Your task to perform on an android device: Clear the shopping cart on bestbuy. Add razer nari to the cart on bestbuy, then select checkout. Image 0: 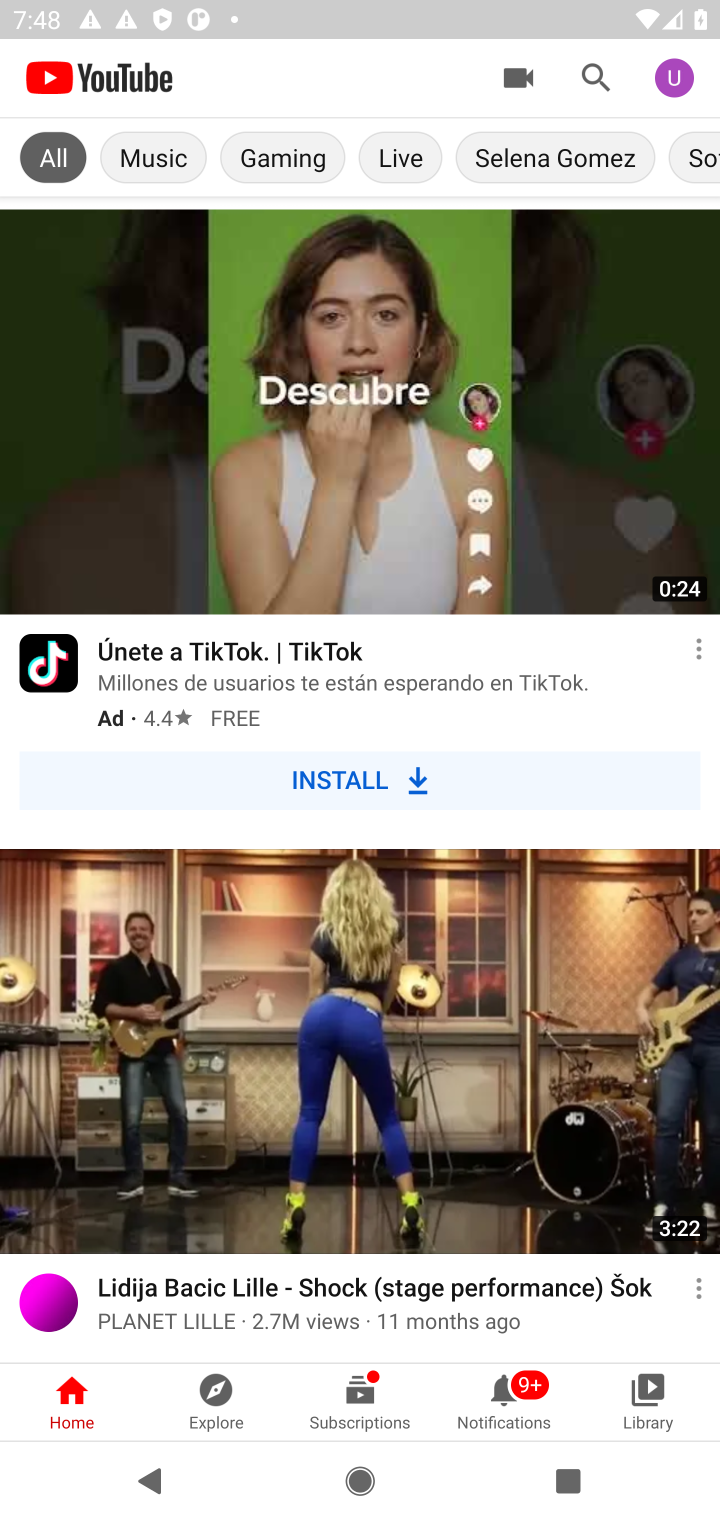
Step 0: press home button
Your task to perform on an android device: Clear the shopping cart on bestbuy. Add razer nari to the cart on bestbuy, then select checkout. Image 1: 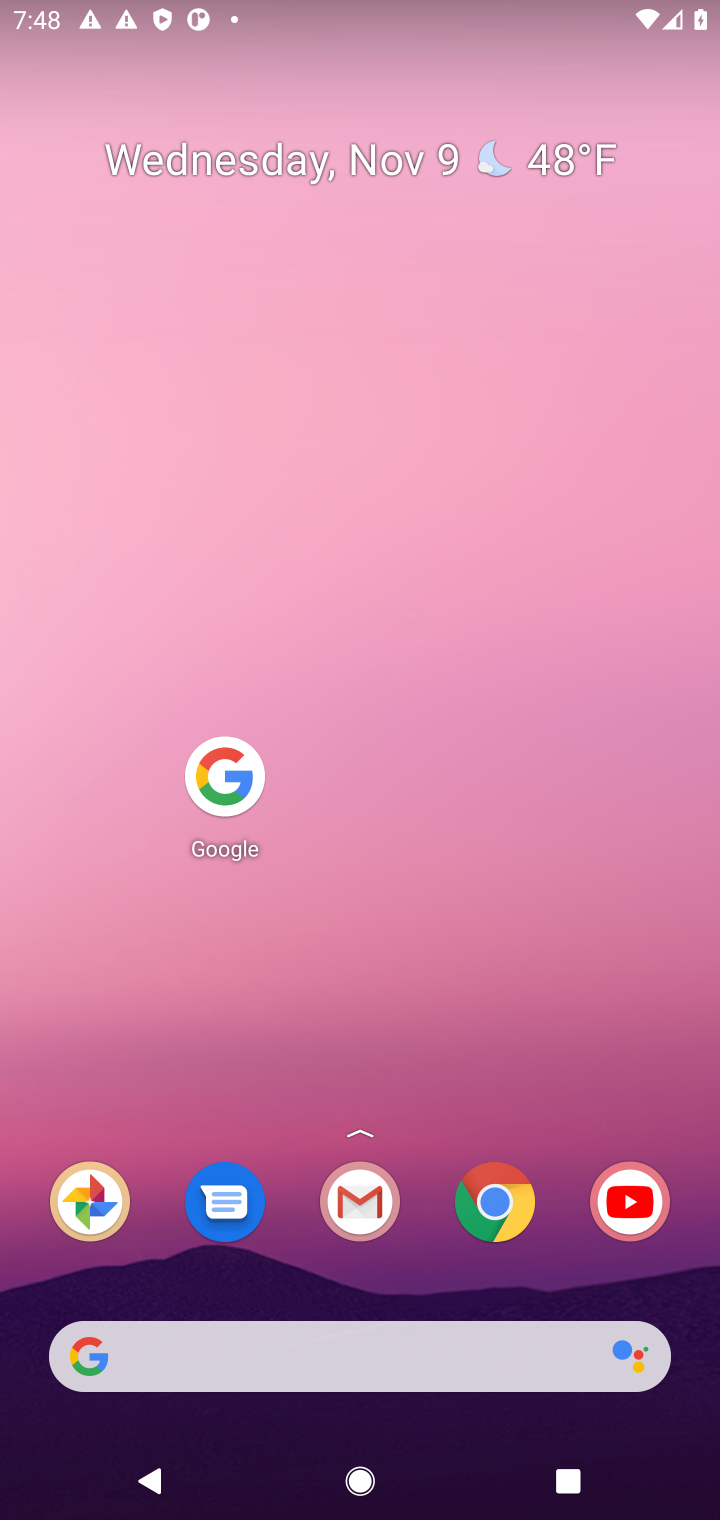
Step 1: click (220, 774)
Your task to perform on an android device: Clear the shopping cart on bestbuy. Add razer nari to the cart on bestbuy, then select checkout. Image 2: 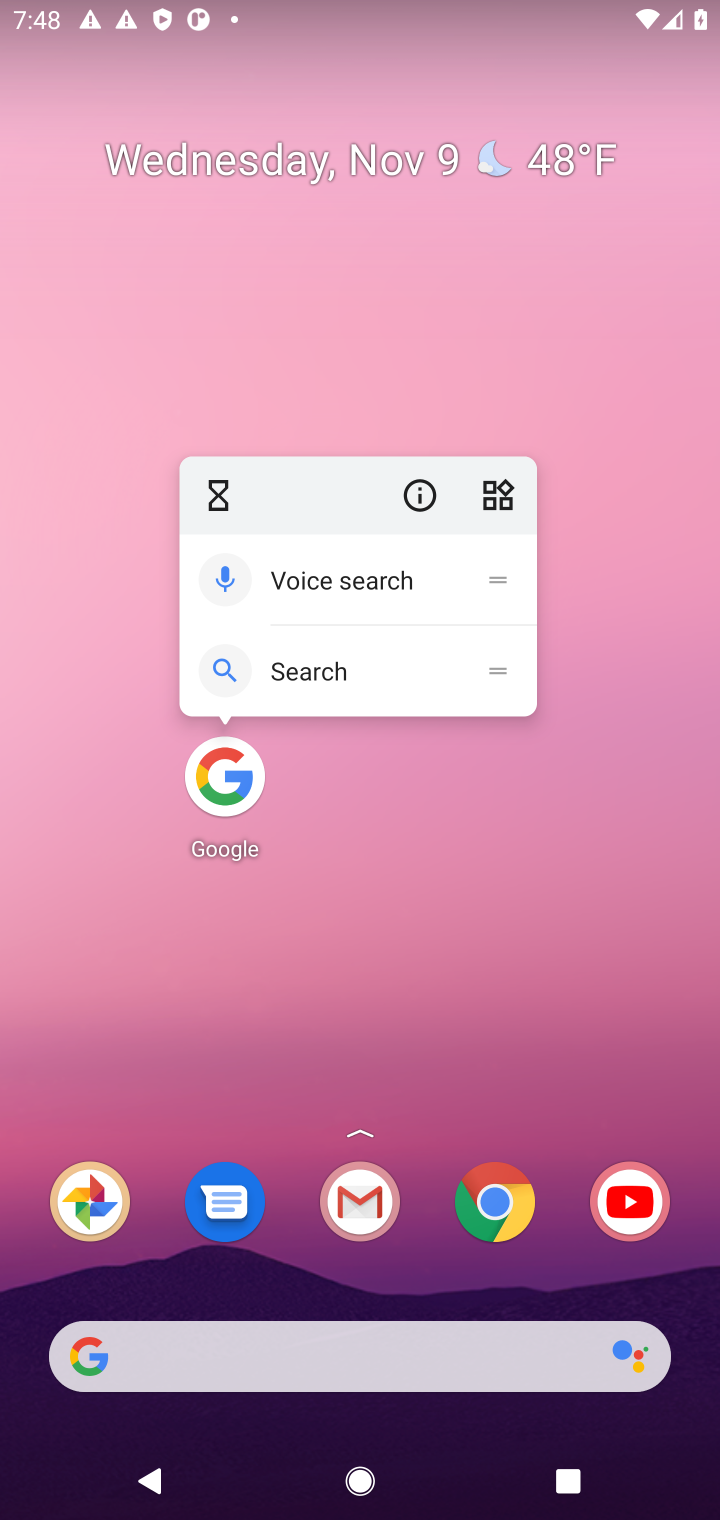
Step 2: click (231, 784)
Your task to perform on an android device: Clear the shopping cart on bestbuy. Add razer nari to the cart on bestbuy, then select checkout. Image 3: 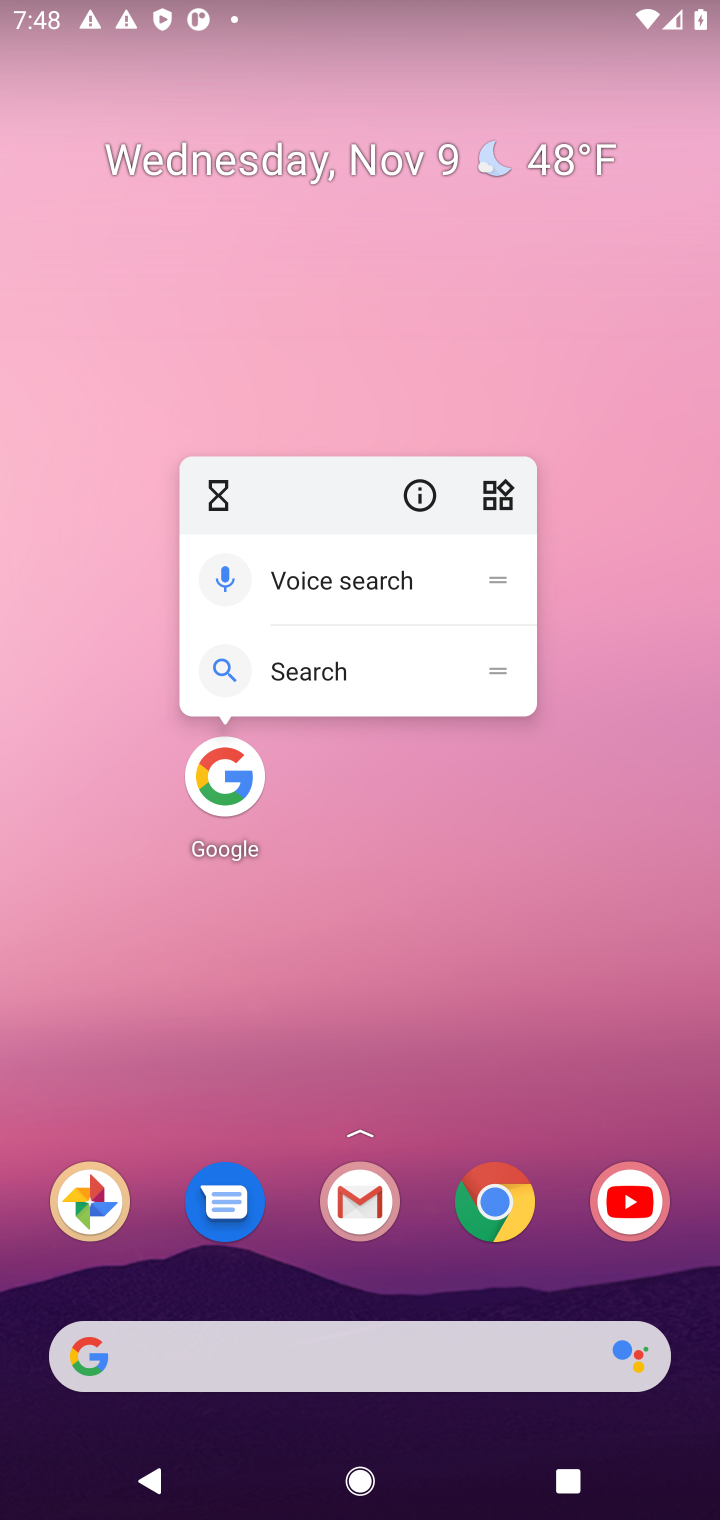
Step 3: click (219, 781)
Your task to perform on an android device: Clear the shopping cart on bestbuy. Add razer nari to the cart on bestbuy, then select checkout. Image 4: 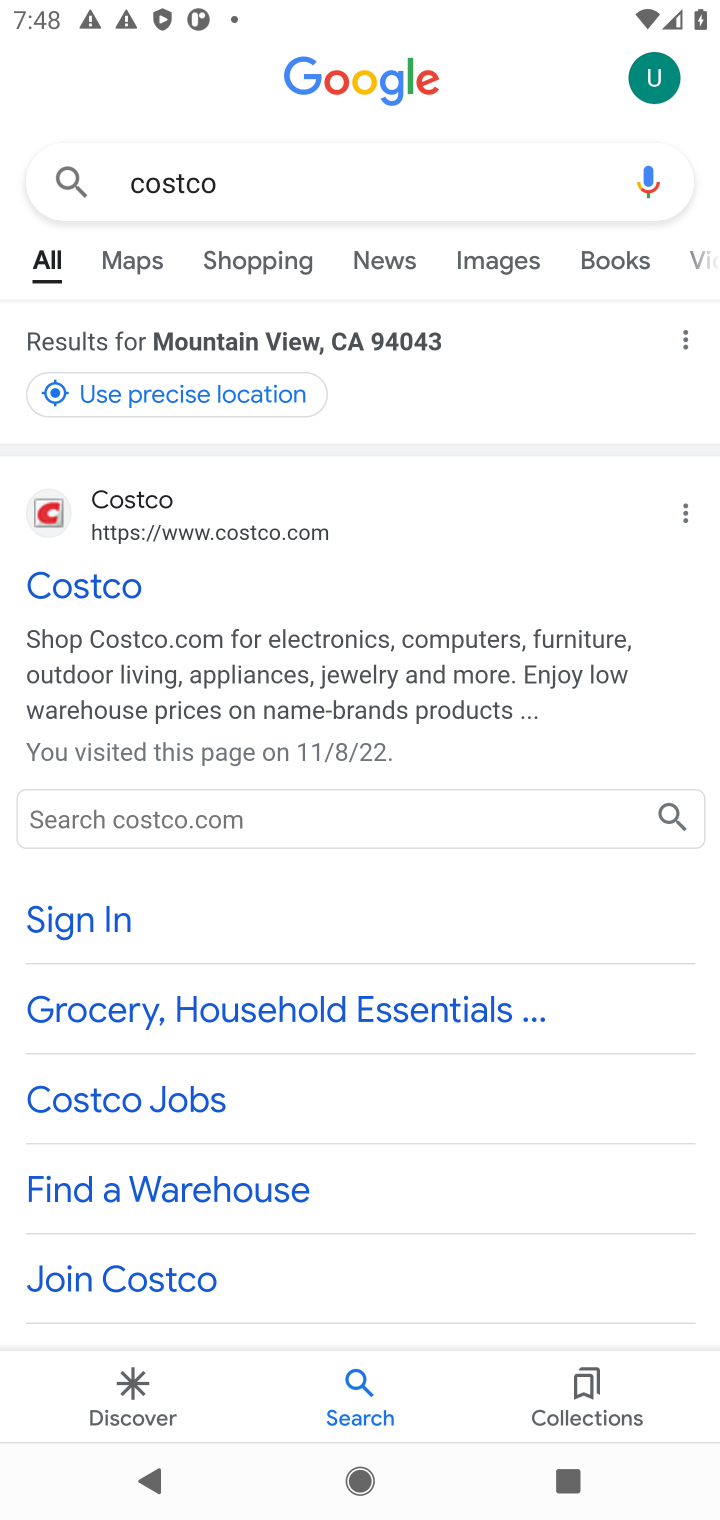
Step 4: click (352, 196)
Your task to perform on an android device: Clear the shopping cart on bestbuy. Add razer nari to the cart on bestbuy, then select checkout. Image 5: 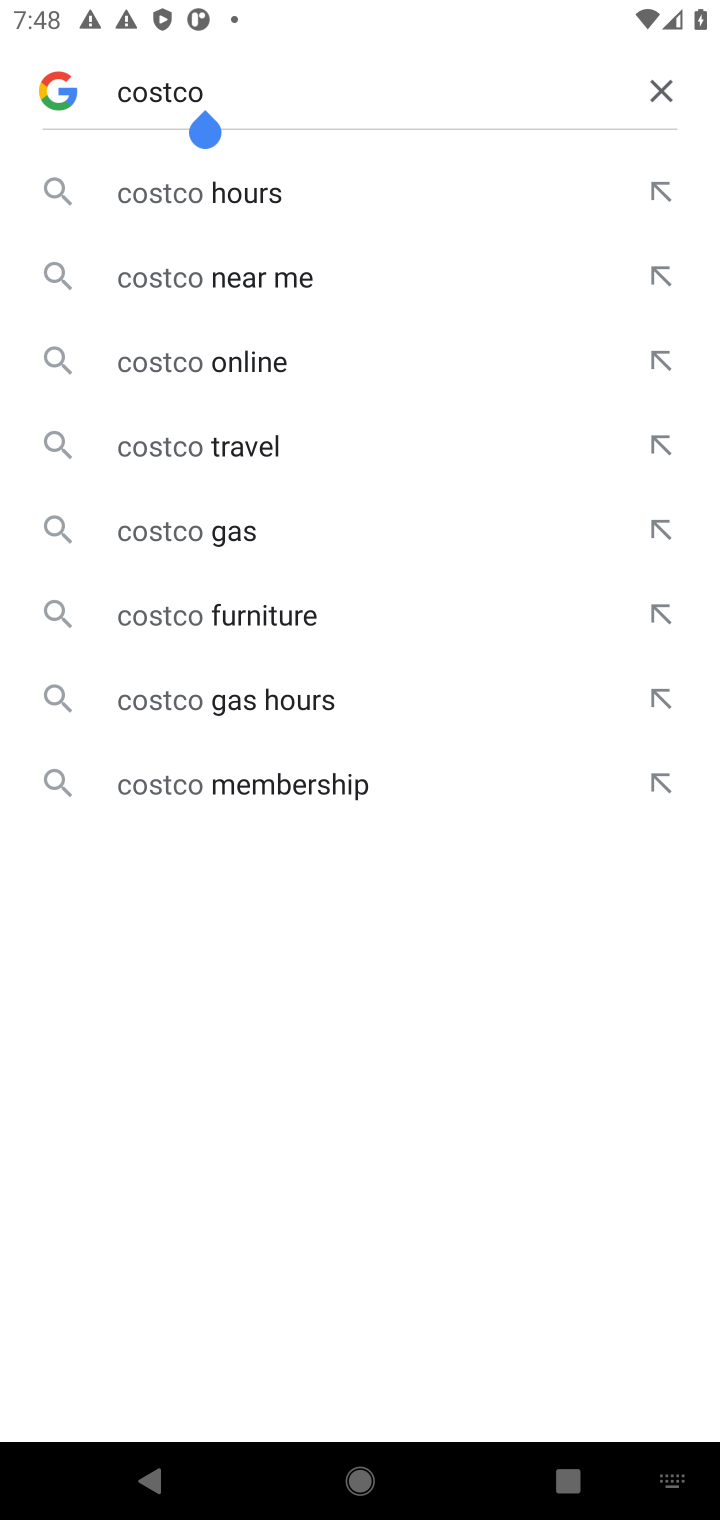
Step 5: click (655, 91)
Your task to perform on an android device: Clear the shopping cart on bestbuy. Add razer nari to the cart on bestbuy, then select checkout. Image 6: 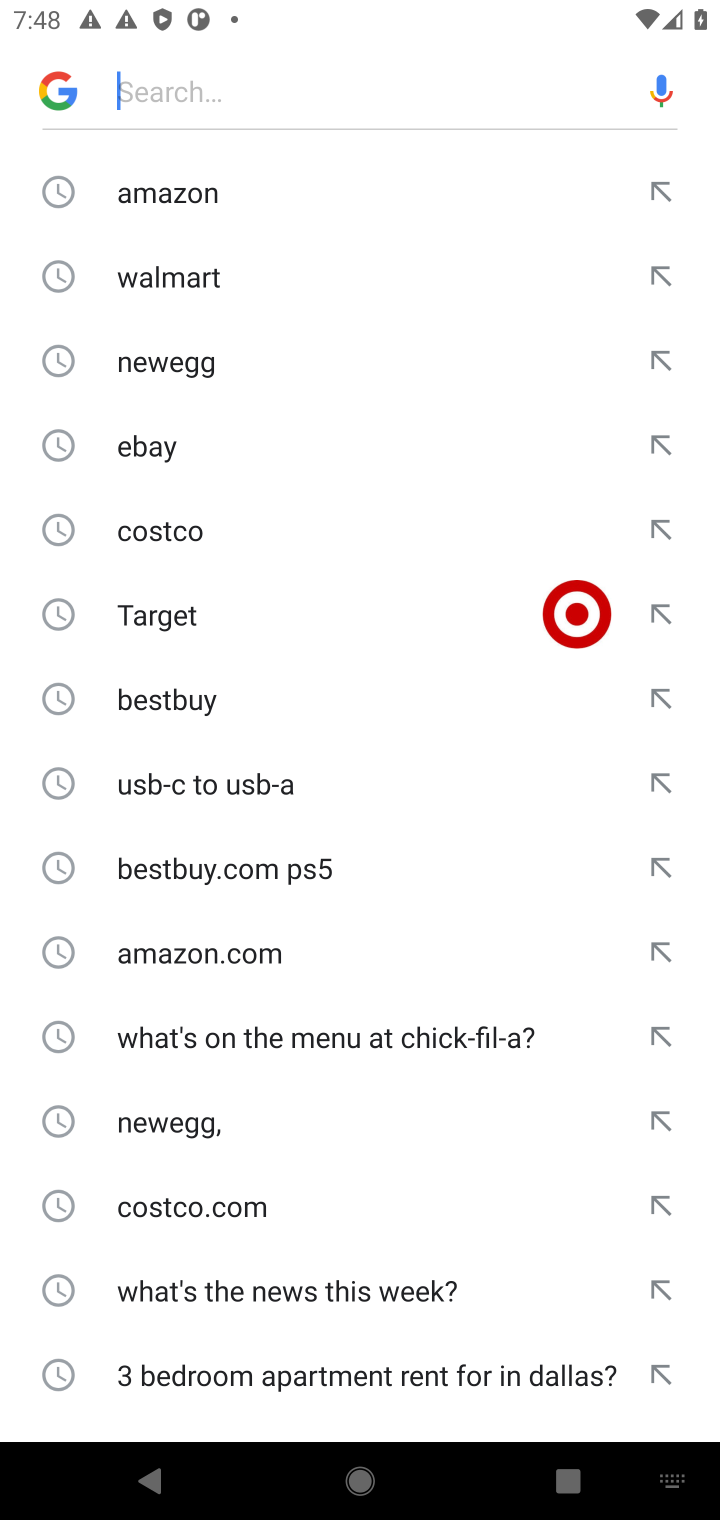
Step 6: click (143, 696)
Your task to perform on an android device: Clear the shopping cart on bestbuy. Add razer nari to the cart on bestbuy, then select checkout. Image 7: 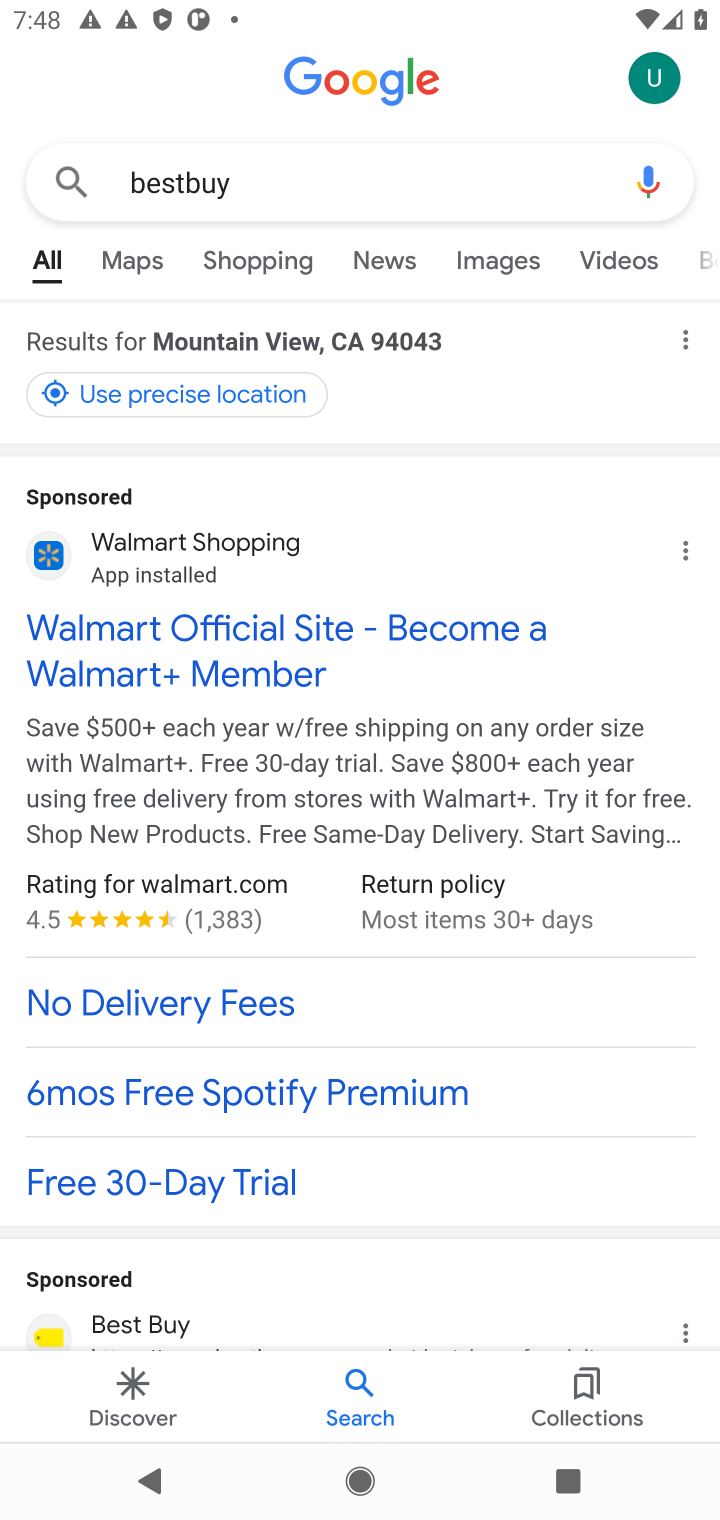
Step 7: drag from (211, 1081) to (453, 606)
Your task to perform on an android device: Clear the shopping cart on bestbuy. Add razer nari to the cart on bestbuy, then select checkout. Image 8: 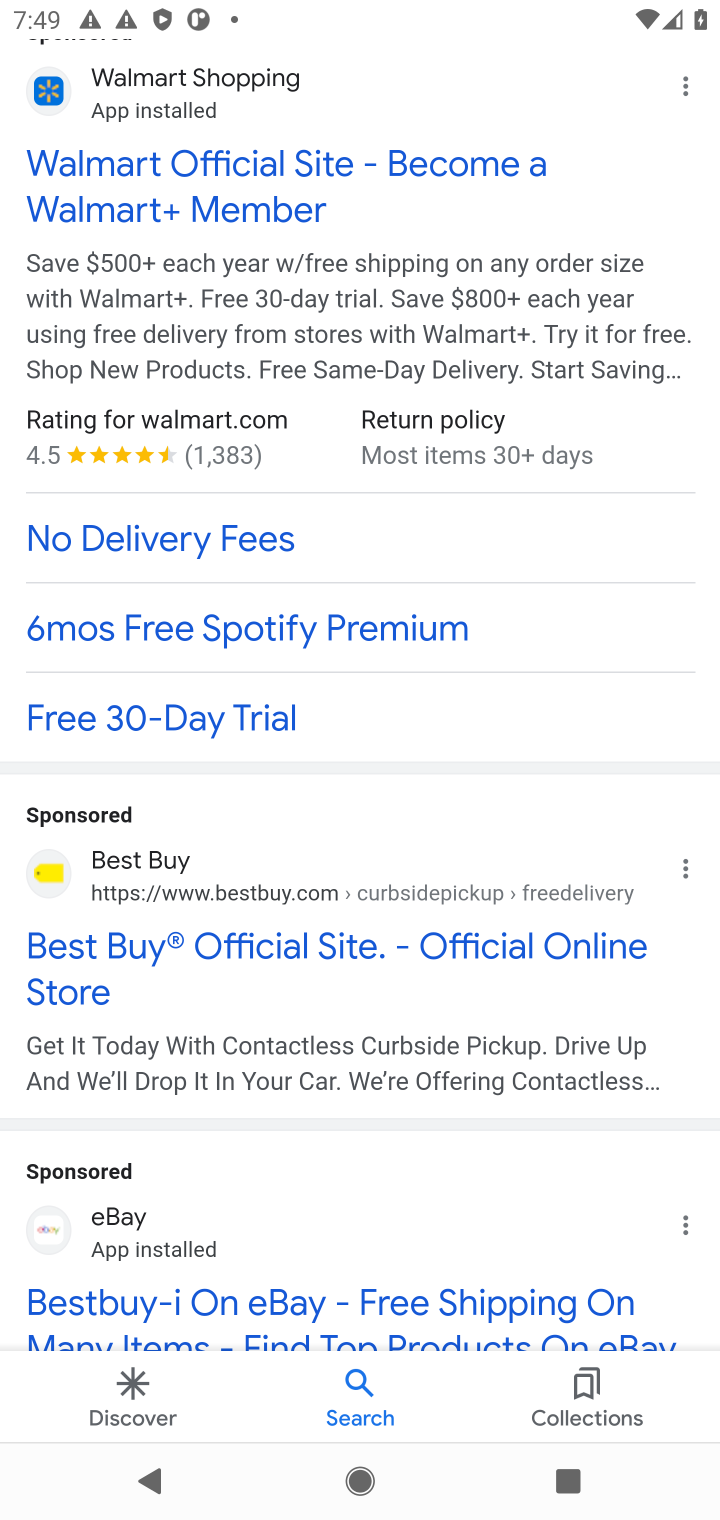
Step 8: click (143, 946)
Your task to perform on an android device: Clear the shopping cart on bestbuy. Add razer nari to the cart on bestbuy, then select checkout. Image 9: 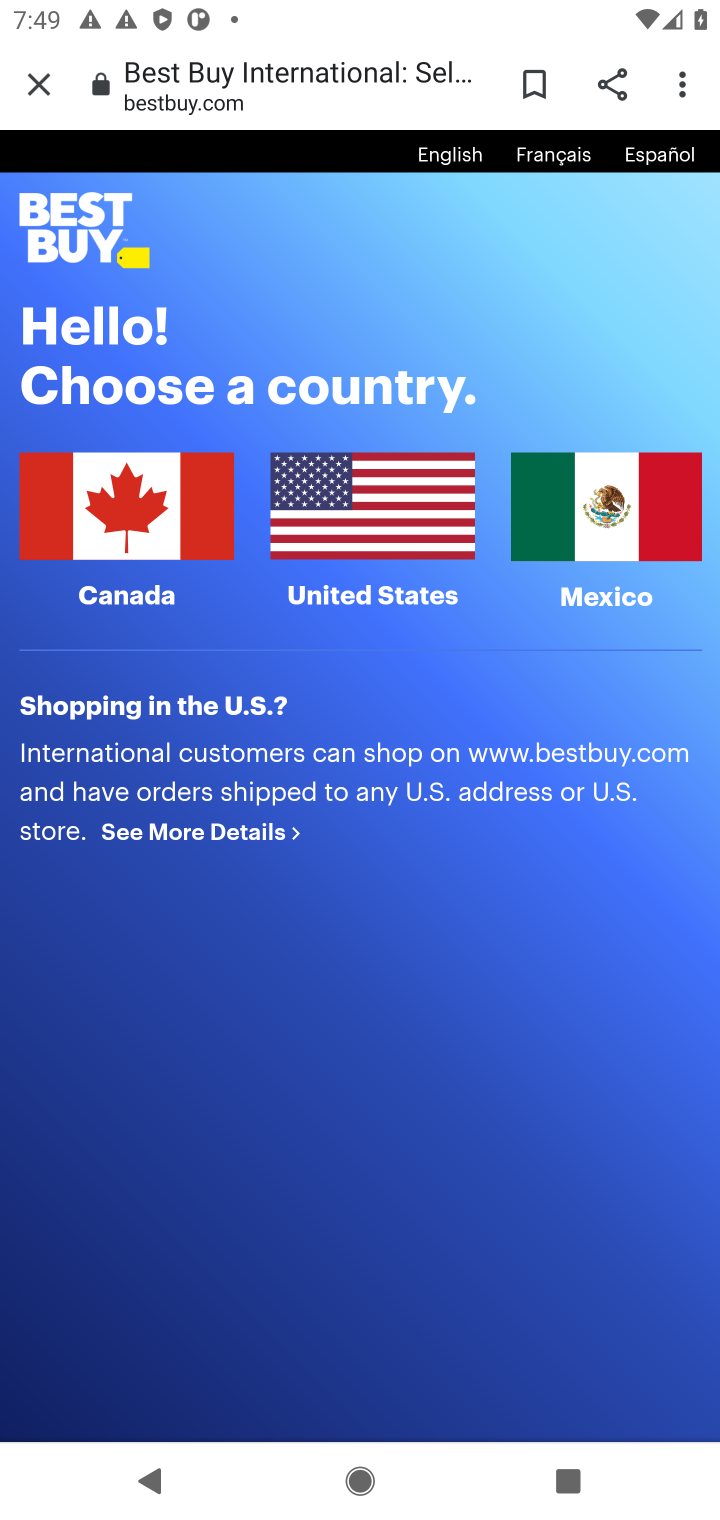
Step 9: click (145, 540)
Your task to perform on an android device: Clear the shopping cart on bestbuy. Add razer nari to the cart on bestbuy, then select checkout. Image 10: 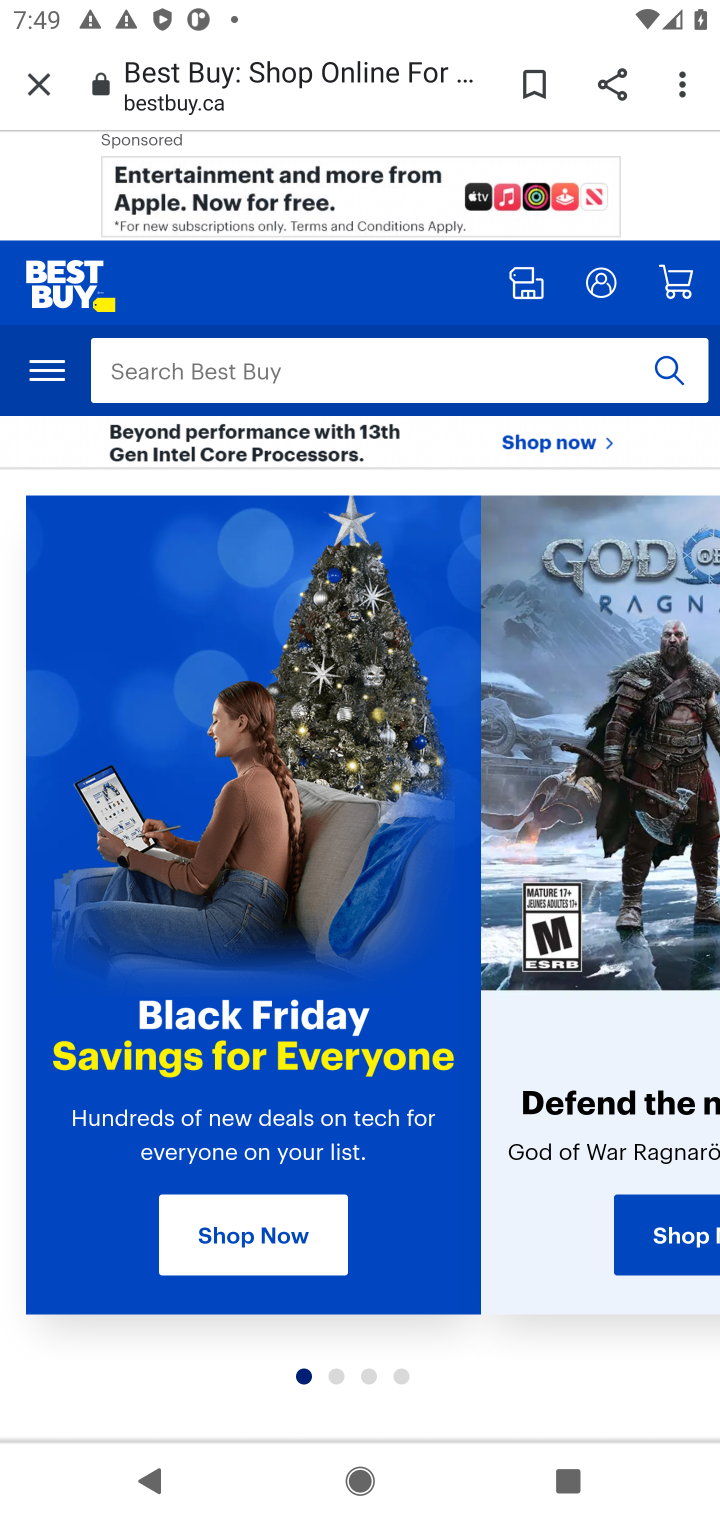
Step 10: click (395, 379)
Your task to perform on an android device: Clear the shopping cart on bestbuy. Add razer nari to the cart on bestbuy, then select checkout. Image 11: 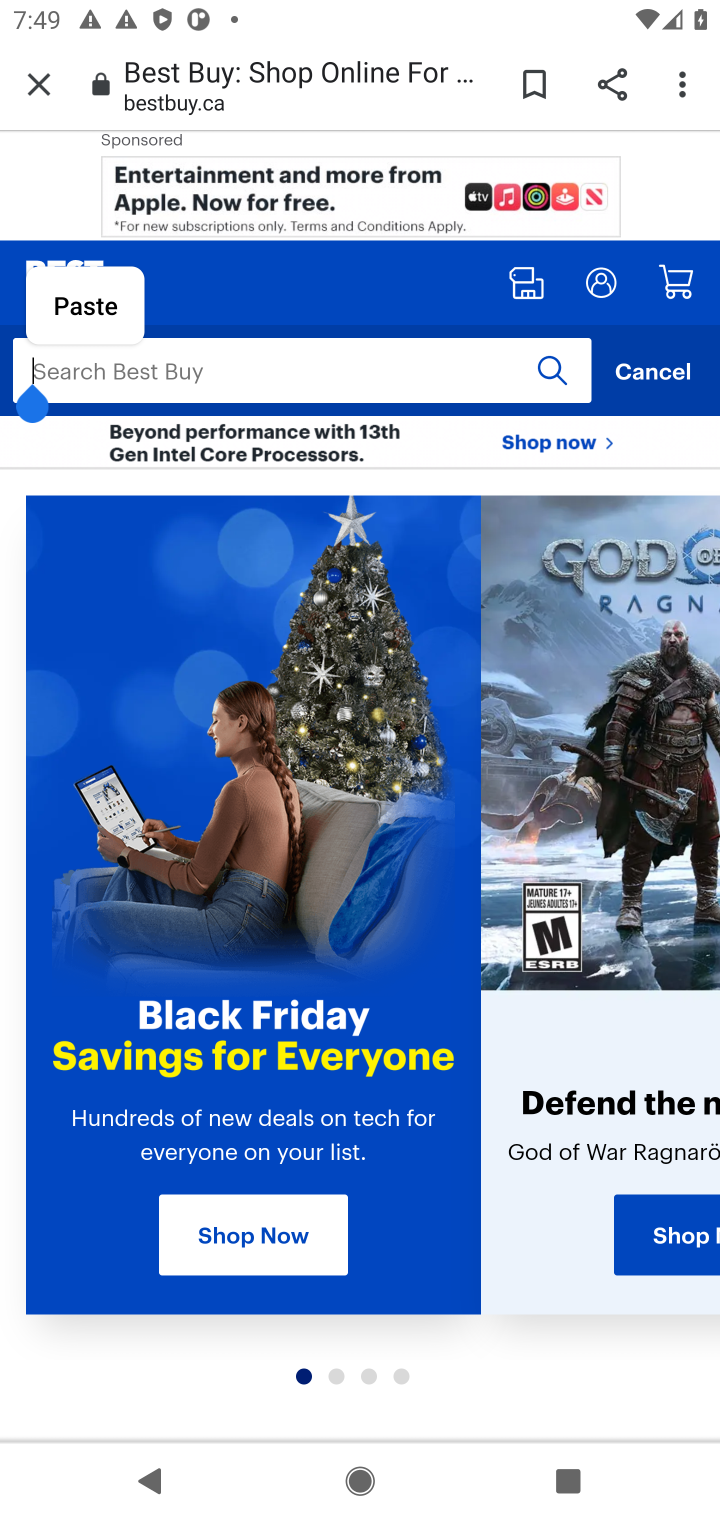
Step 11: type " razer nari"
Your task to perform on an android device: Clear the shopping cart on bestbuy. Add razer nari to the cart on bestbuy, then select checkout. Image 12: 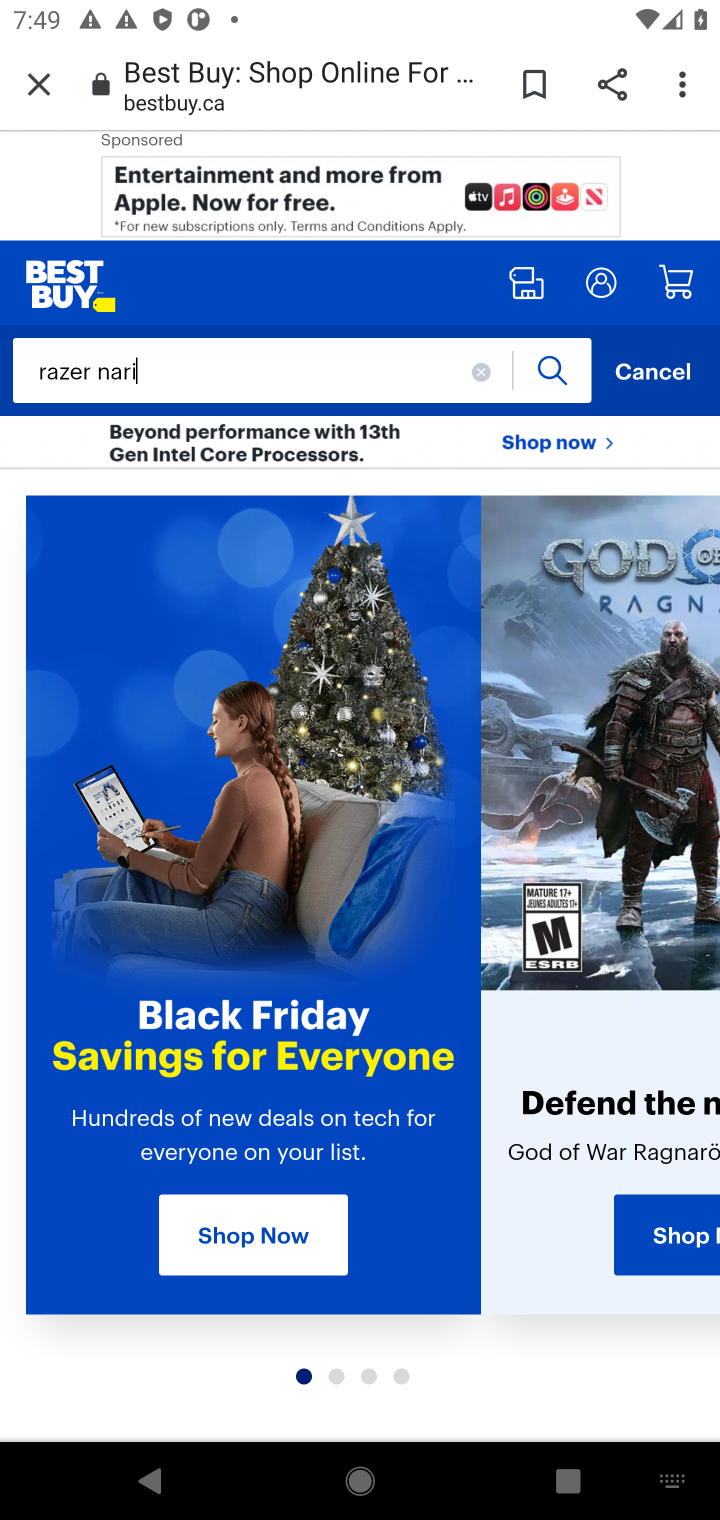
Step 12: press enter
Your task to perform on an android device: Clear the shopping cart on bestbuy. Add razer nari to the cart on bestbuy, then select checkout. Image 13: 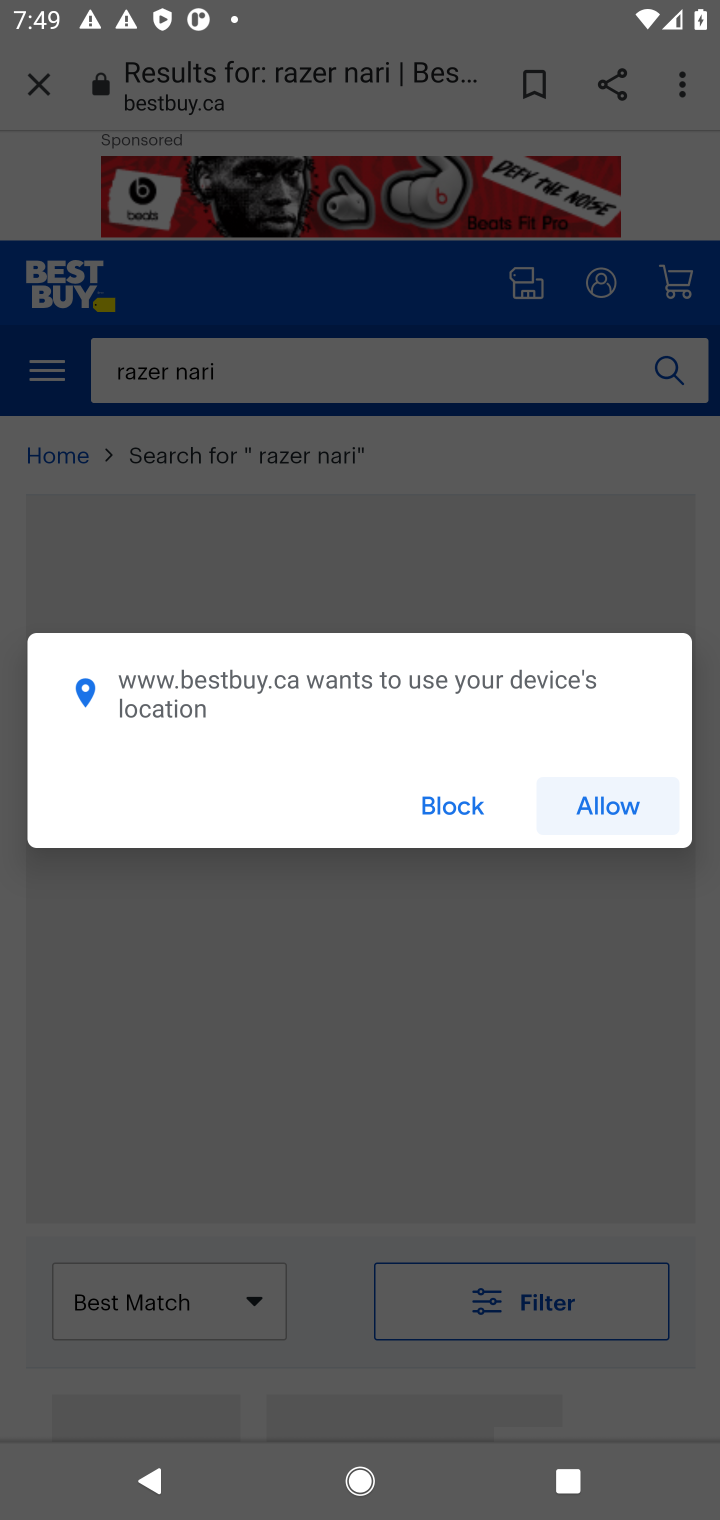
Step 13: click (587, 801)
Your task to perform on an android device: Clear the shopping cart on bestbuy. Add razer nari to the cart on bestbuy, then select checkout. Image 14: 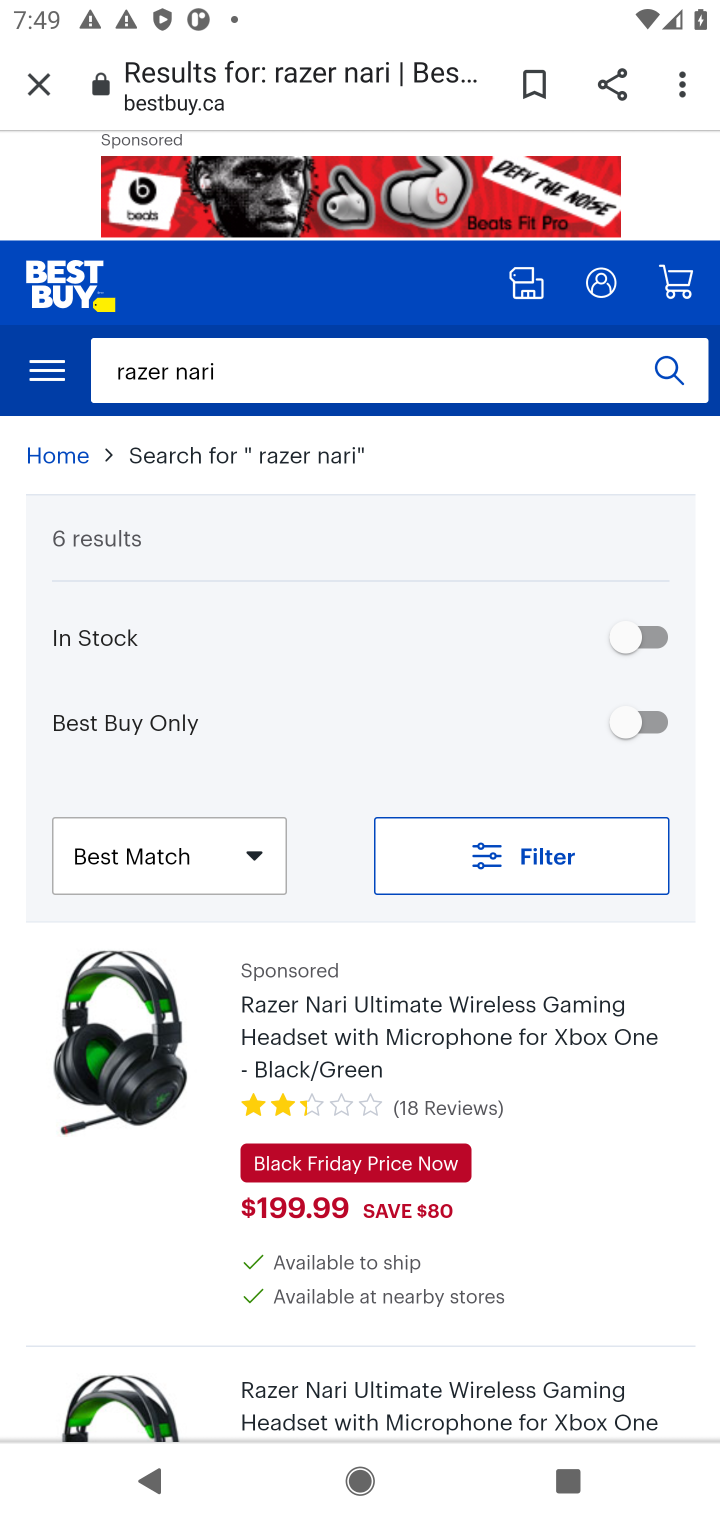
Step 14: drag from (576, 1203) to (631, 1025)
Your task to perform on an android device: Clear the shopping cart on bestbuy. Add razer nari to the cart on bestbuy, then select checkout. Image 15: 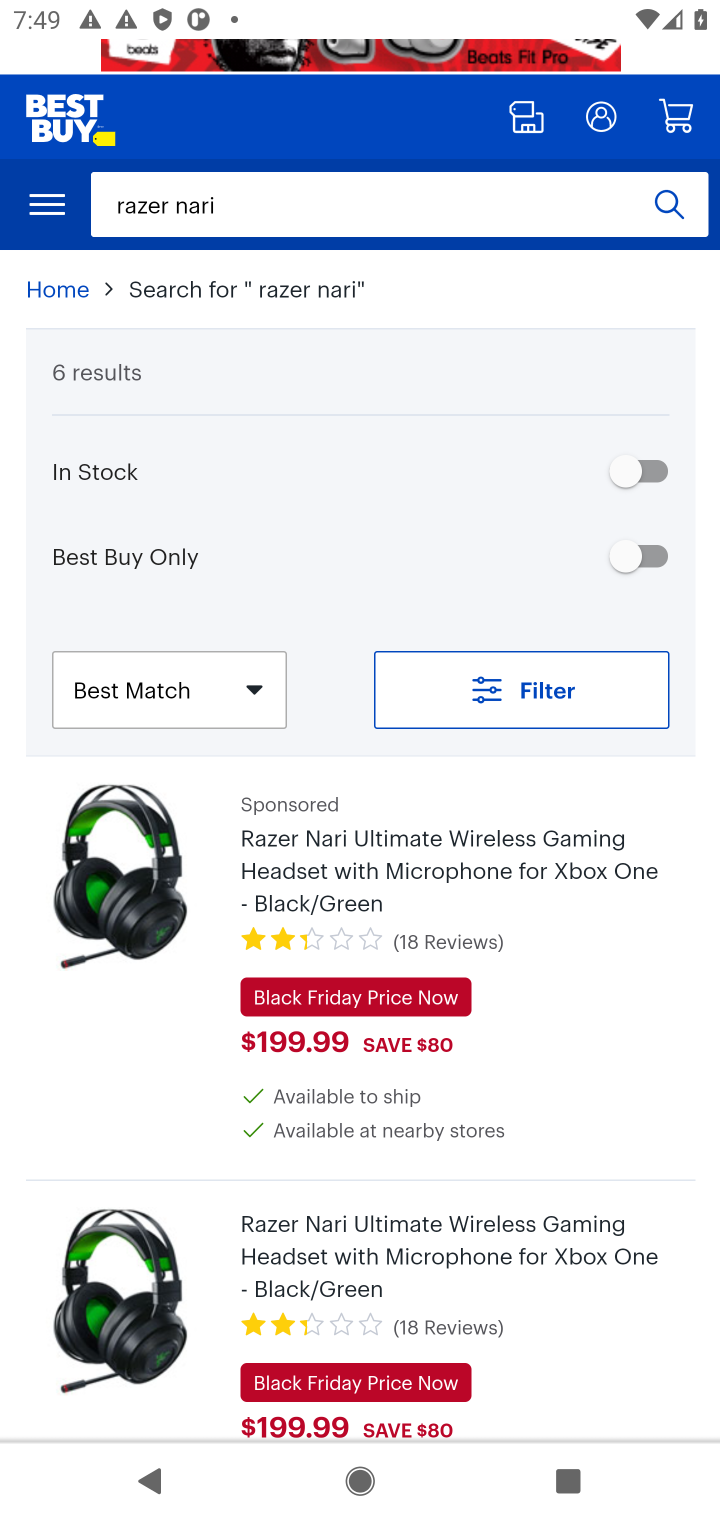
Step 15: drag from (537, 1275) to (599, 822)
Your task to perform on an android device: Clear the shopping cart on bestbuy. Add razer nari to the cart on bestbuy, then select checkout. Image 16: 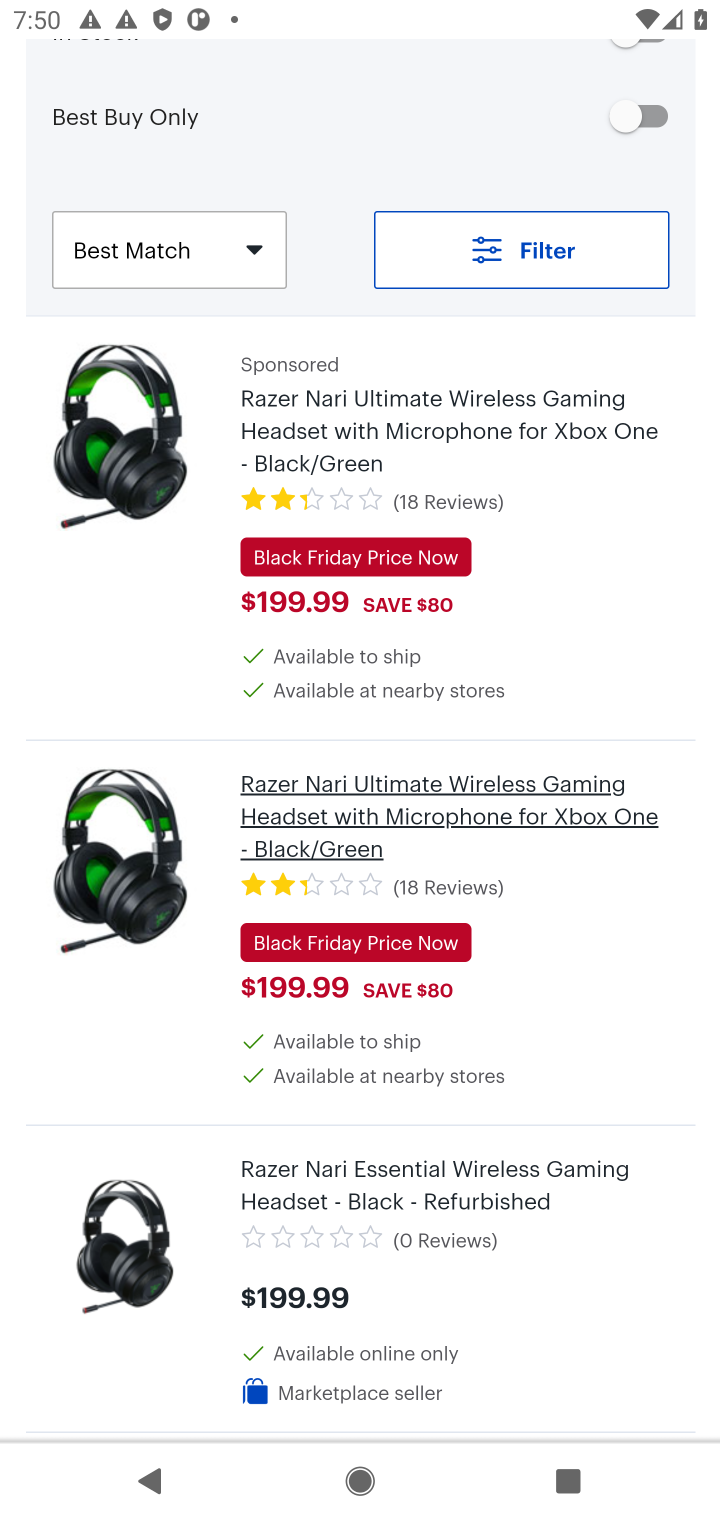
Step 16: drag from (467, 1291) to (547, 1080)
Your task to perform on an android device: Clear the shopping cart on bestbuy. Add razer nari to the cart on bestbuy, then select checkout. Image 17: 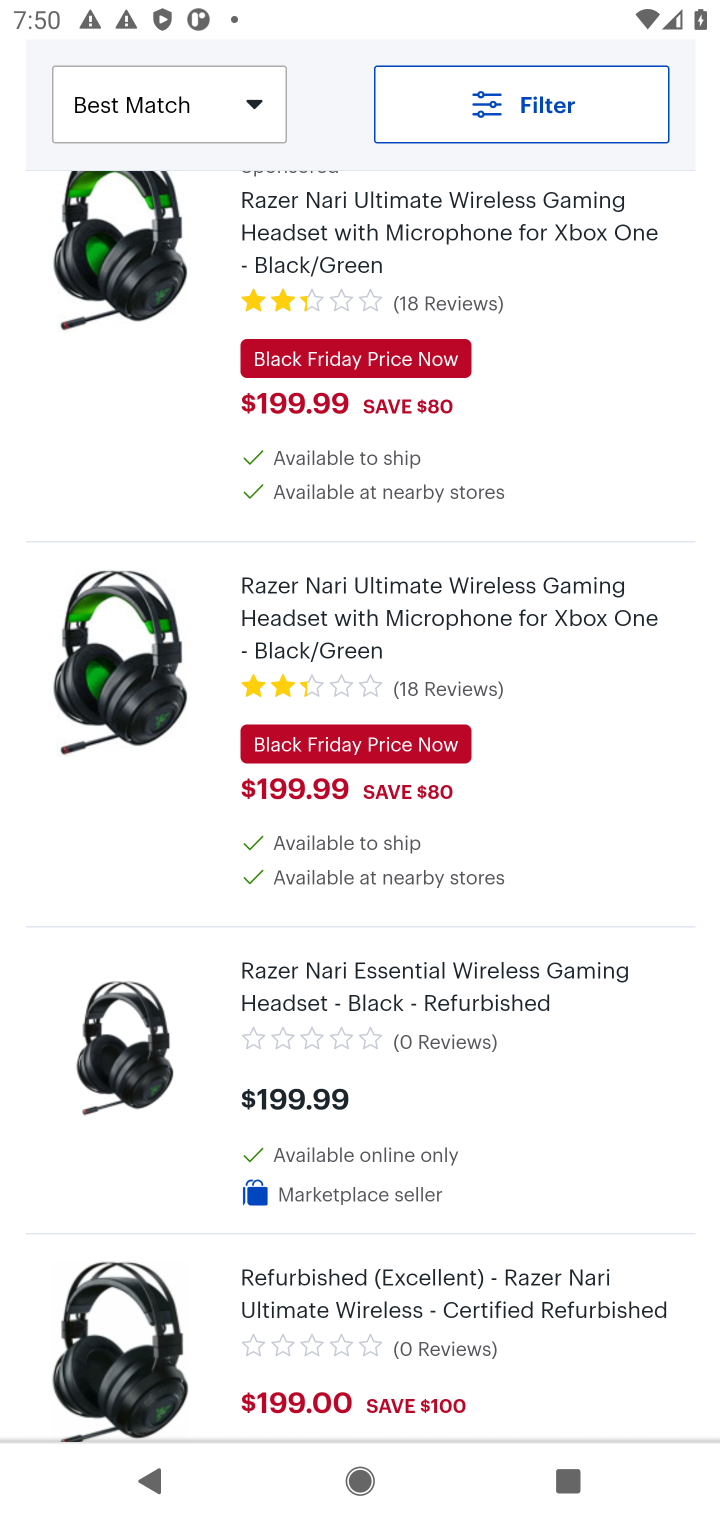
Step 17: click (496, 996)
Your task to perform on an android device: Clear the shopping cart on bestbuy. Add razer nari to the cart on bestbuy, then select checkout. Image 18: 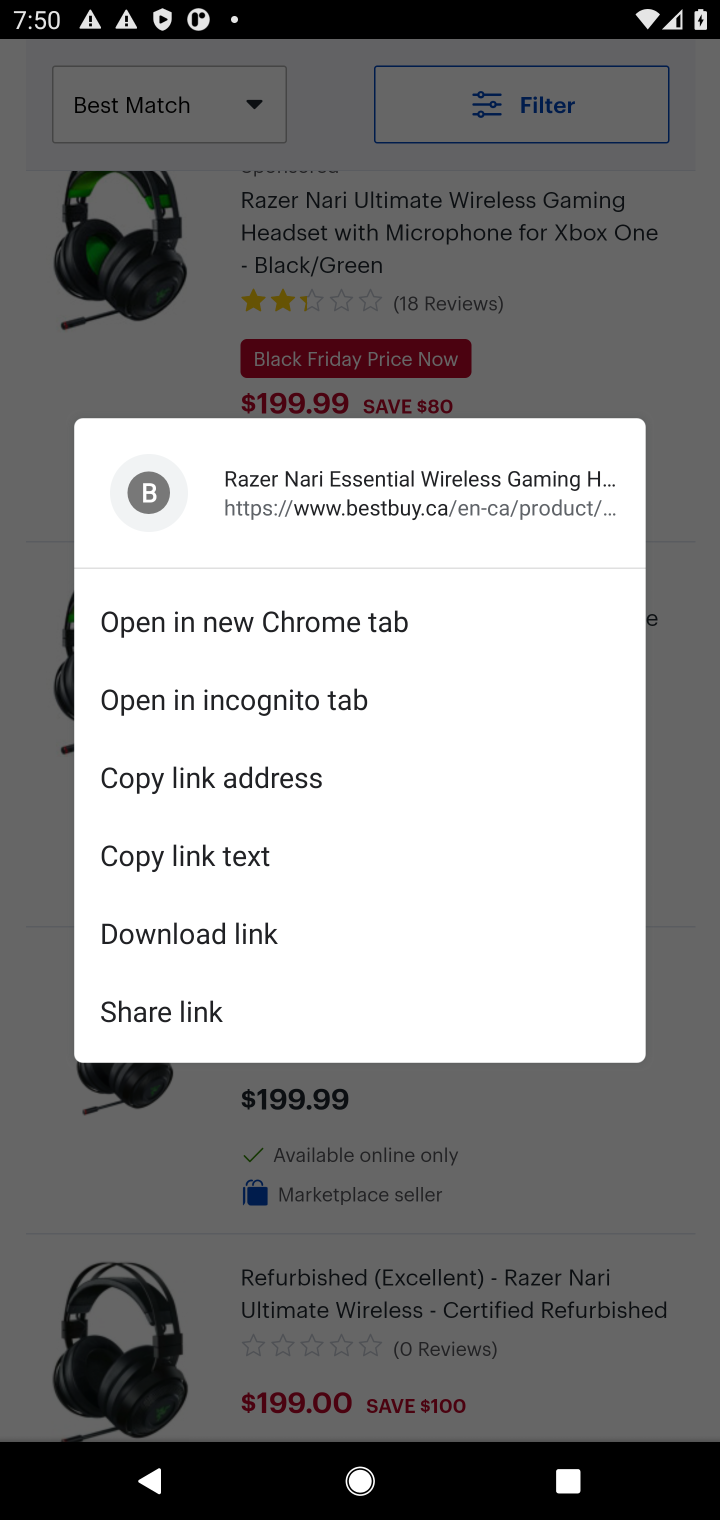
Step 18: click (671, 1050)
Your task to perform on an android device: Clear the shopping cart on bestbuy. Add razer nari to the cart on bestbuy, then select checkout. Image 19: 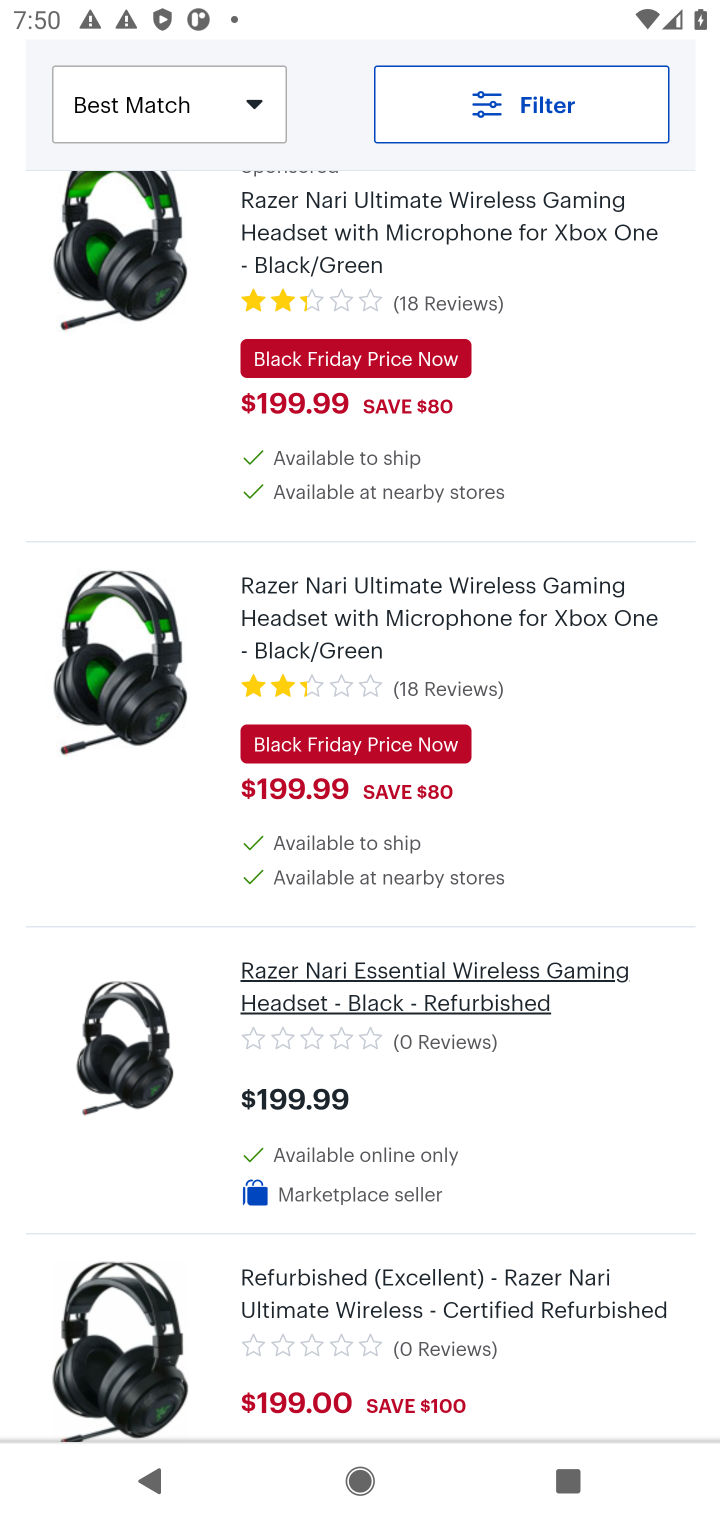
Step 19: click (377, 978)
Your task to perform on an android device: Clear the shopping cart on bestbuy. Add razer nari to the cart on bestbuy, then select checkout. Image 20: 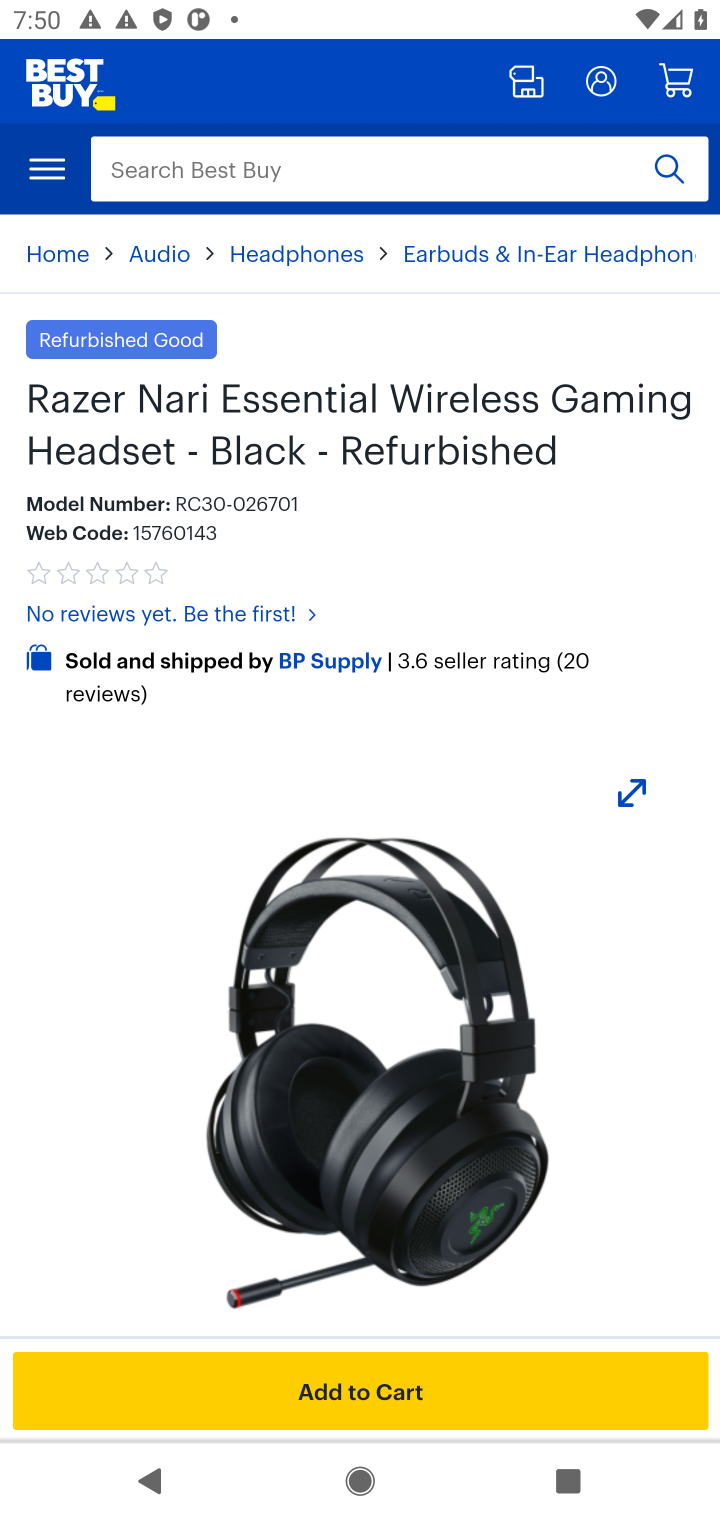
Step 20: drag from (182, 1008) to (470, 524)
Your task to perform on an android device: Clear the shopping cart on bestbuy. Add razer nari to the cart on bestbuy, then select checkout. Image 21: 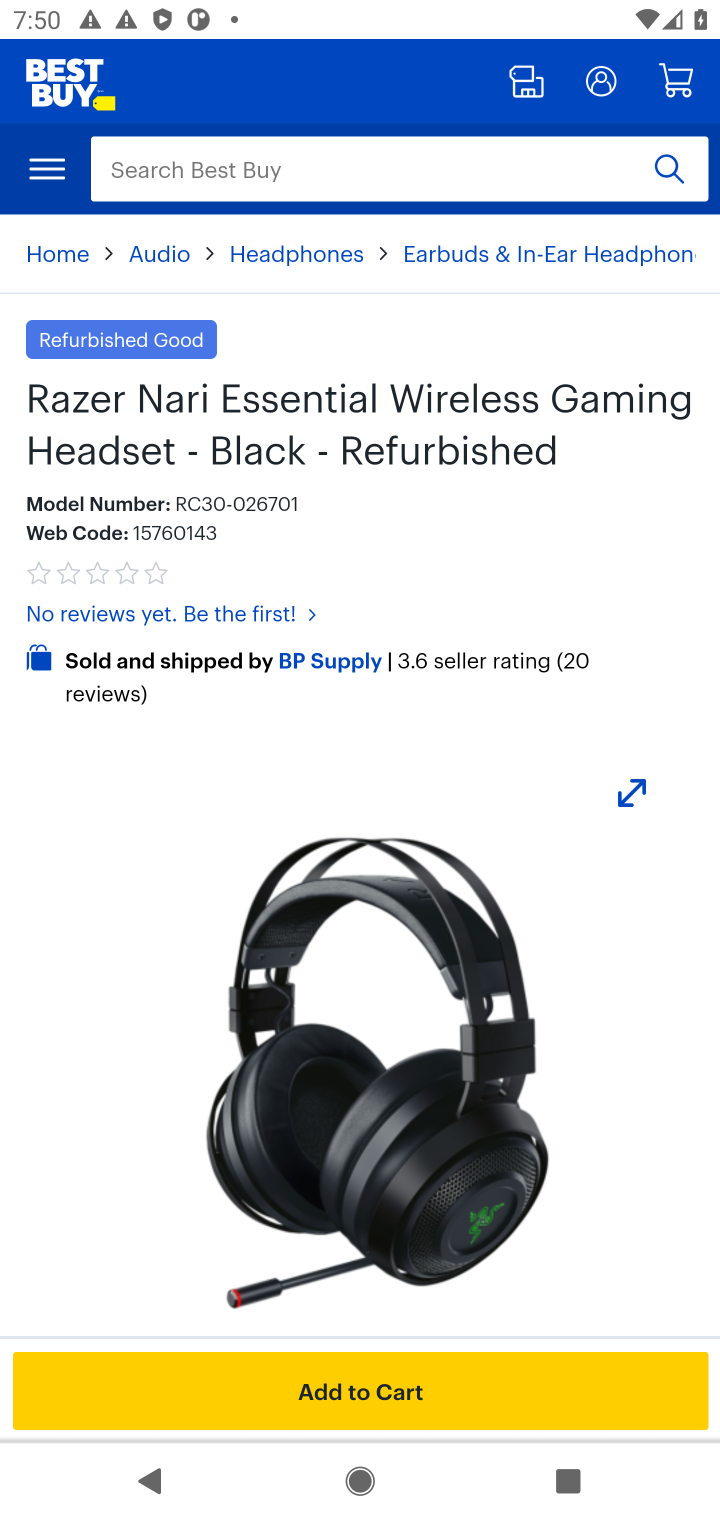
Step 21: click (383, 1393)
Your task to perform on an android device: Clear the shopping cart on bestbuy. Add razer nari to the cart on bestbuy, then select checkout. Image 22: 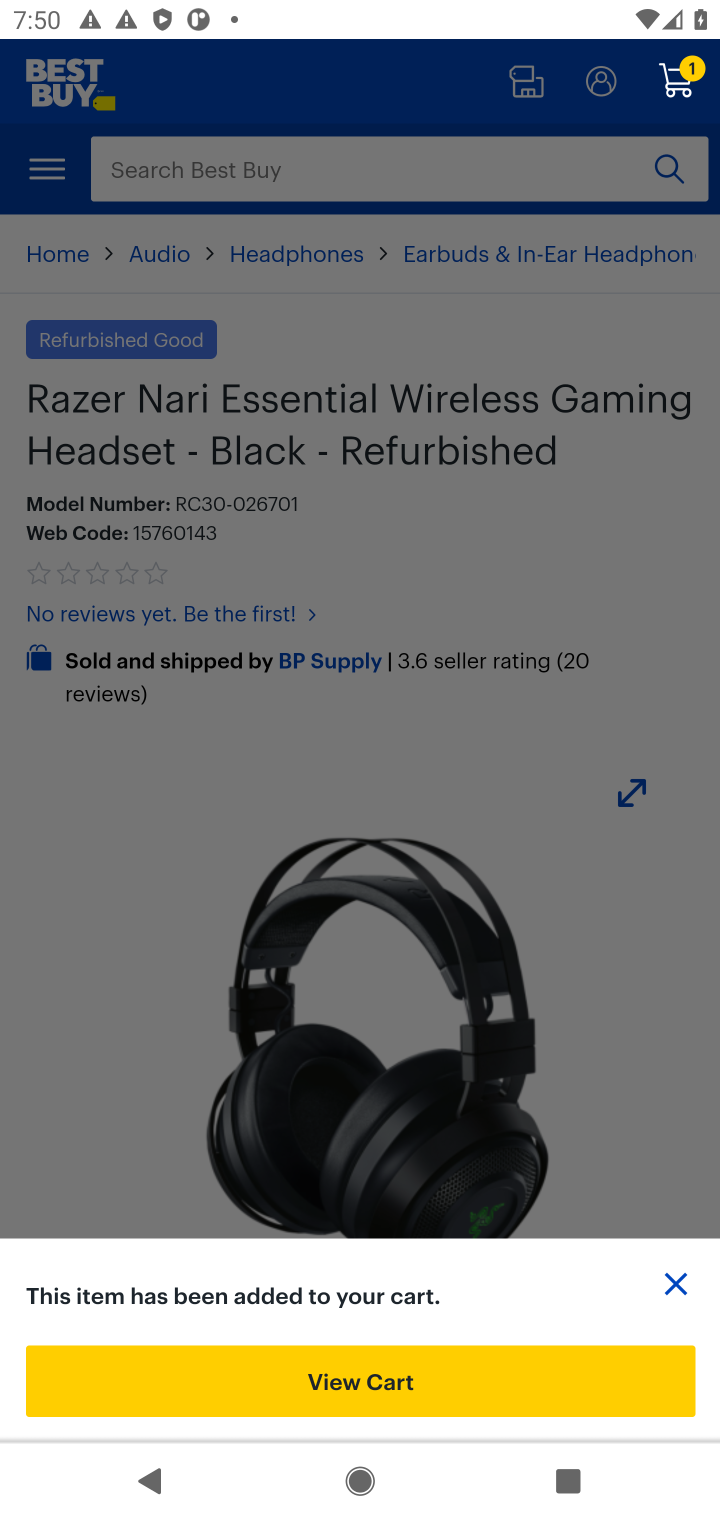
Step 22: click (401, 1383)
Your task to perform on an android device: Clear the shopping cart on bestbuy. Add razer nari to the cart on bestbuy, then select checkout. Image 23: 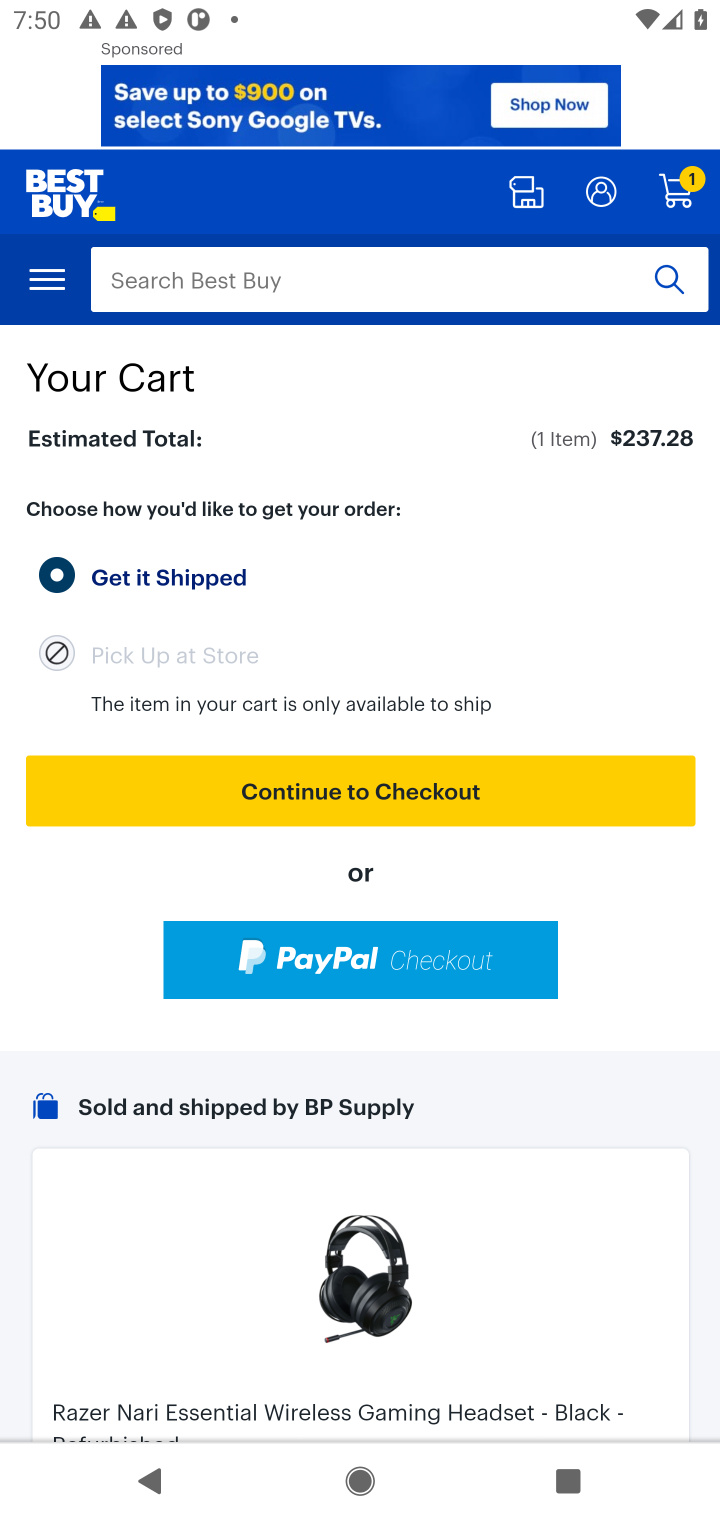
Step 23: click (352, 793)
Your task to perform on an android device: Clear the shopping cart on bestbuy. Add razer nari to the cart on bestbuy, then select checkout. Image 24: 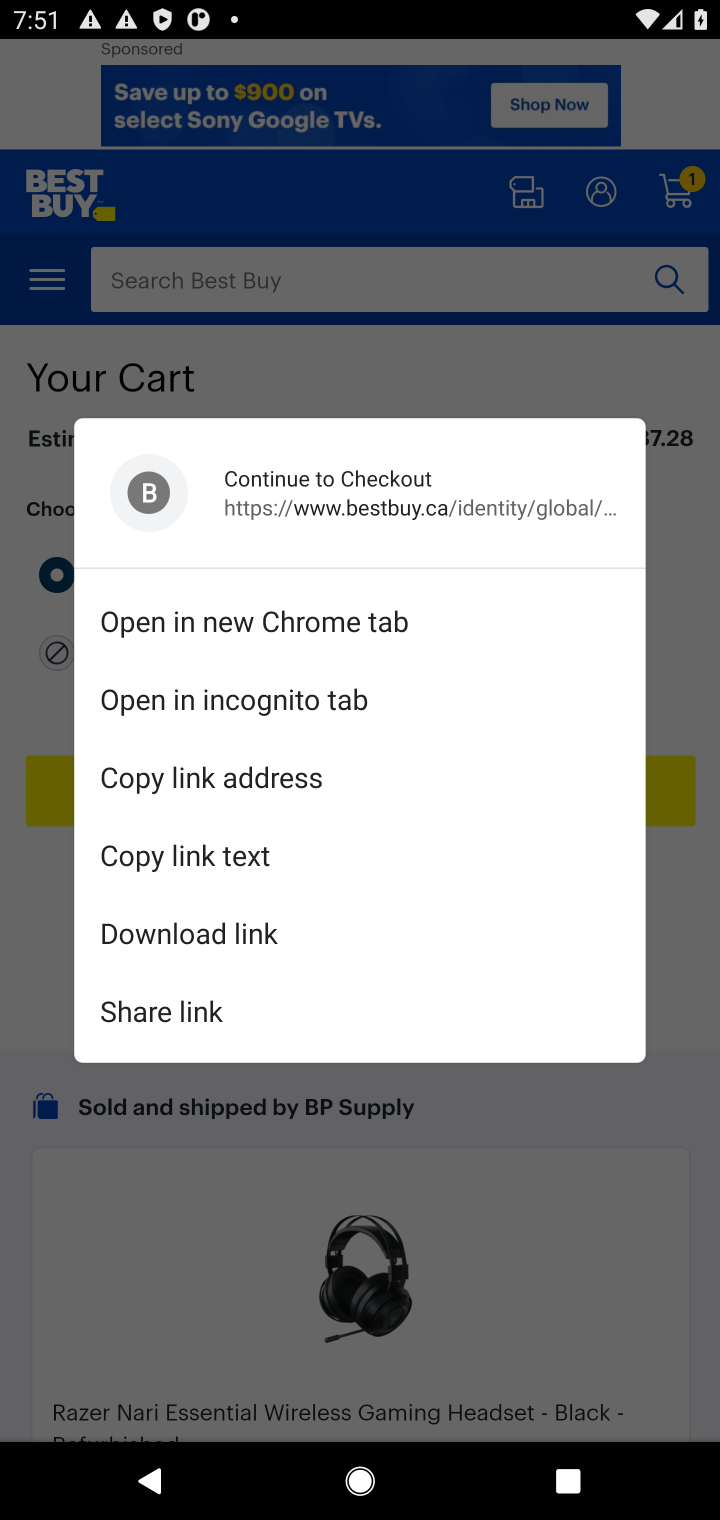
Step 24: click (652, 1210)
Your task to perform on an android device: Clear the shopping cart on bestbuy. Add razer nari to the cart on bestbuy, then select checkout. Image 25: 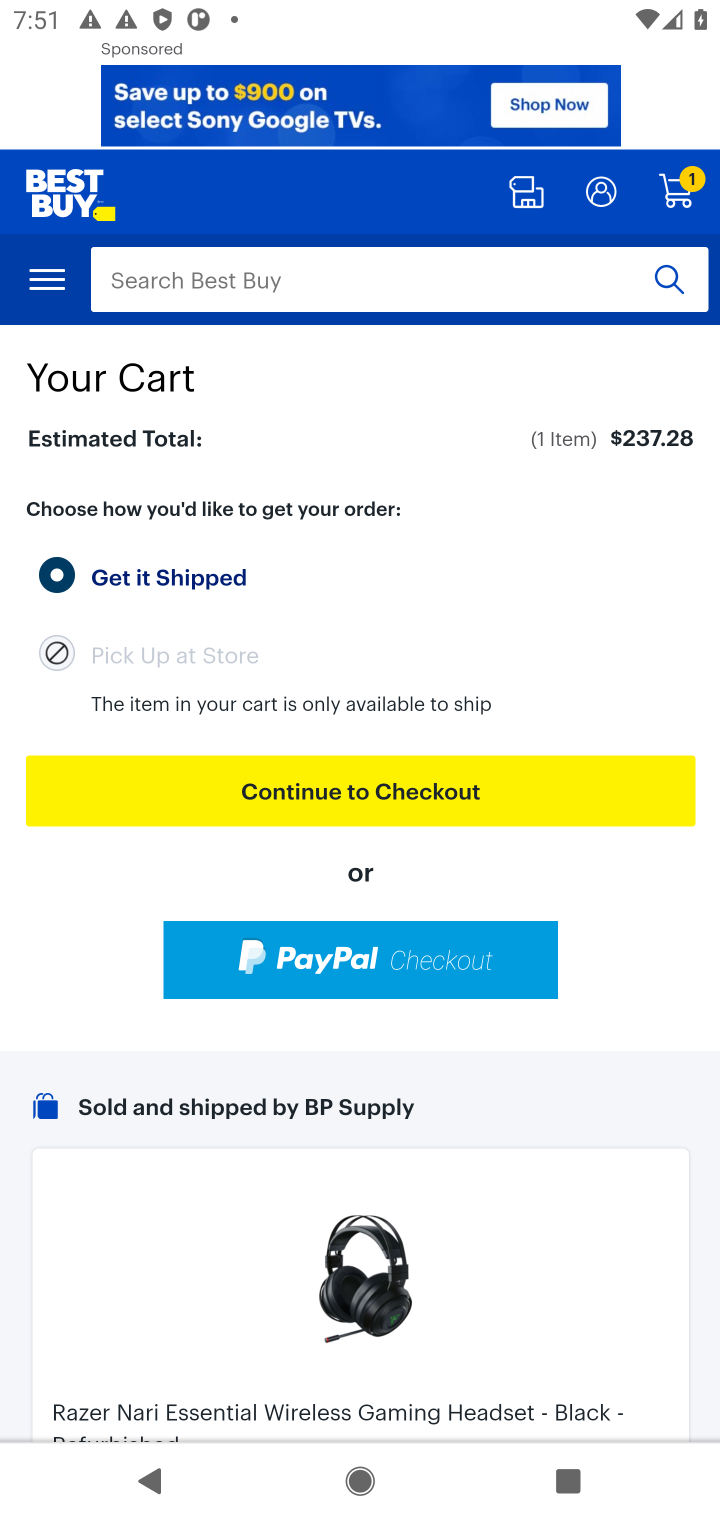
Step 25: click (450, 790)
Your task to perform on an android device: Clear the shopping cart on bestbuy. Add razer nari to the cart on bestbuy, then select checkout. Image 26: 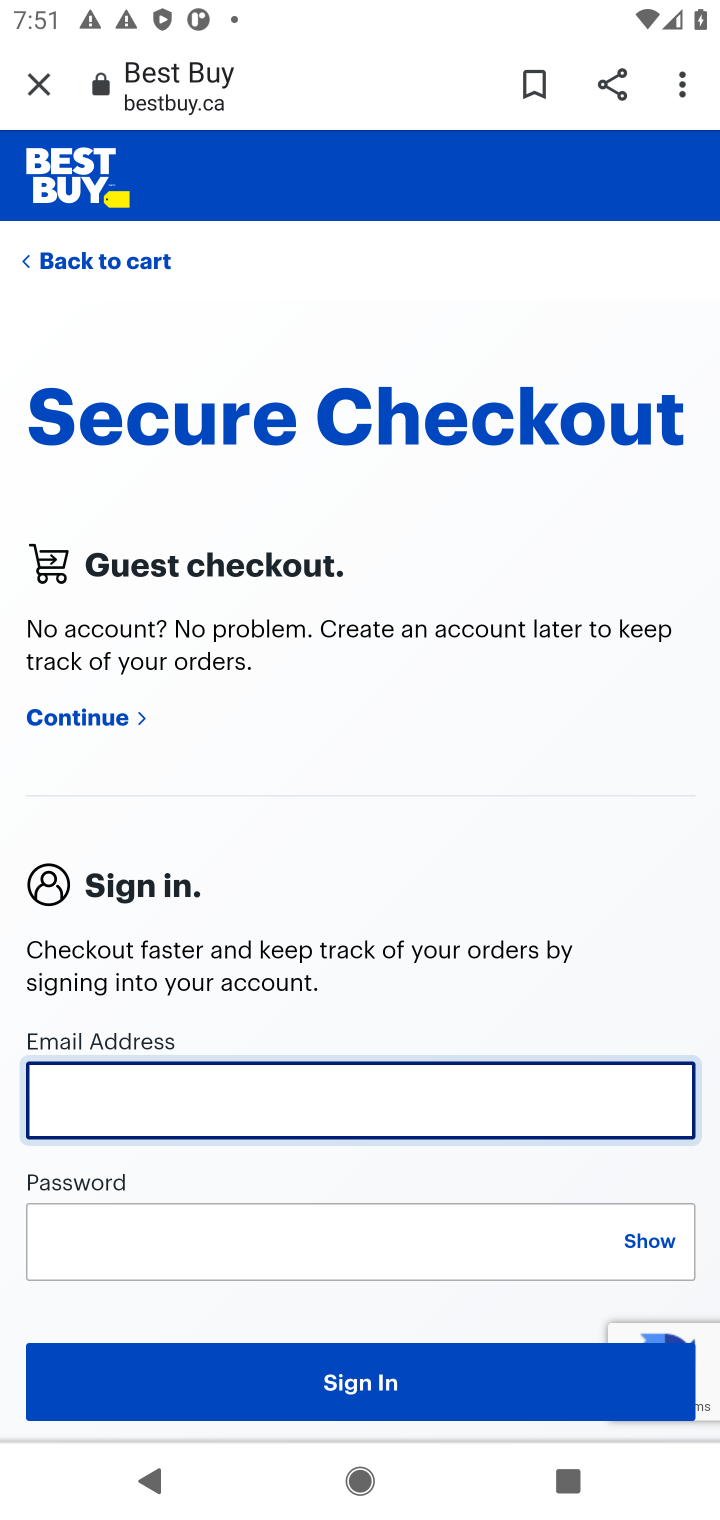
Step 26: task complete